Your task to perform on an android device: Open the calendar app, open the side menu, and click the "Day" option Image 0: 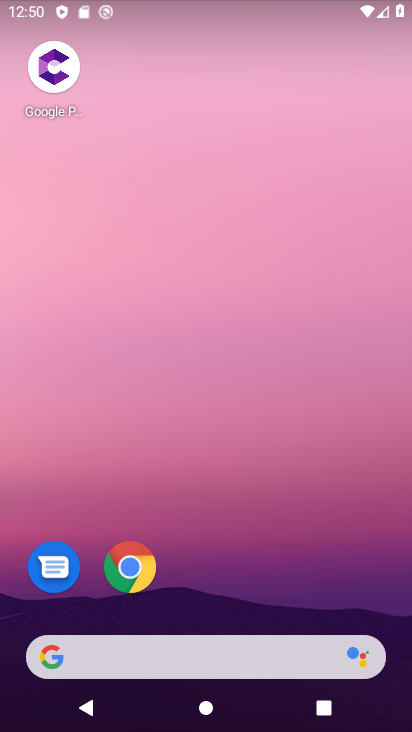
Step 0: drag from (225, 567) to (342, 112)
Your task to perform on an android device: Open the calendar app, open the side menu, and click the "Day" option Image 1: 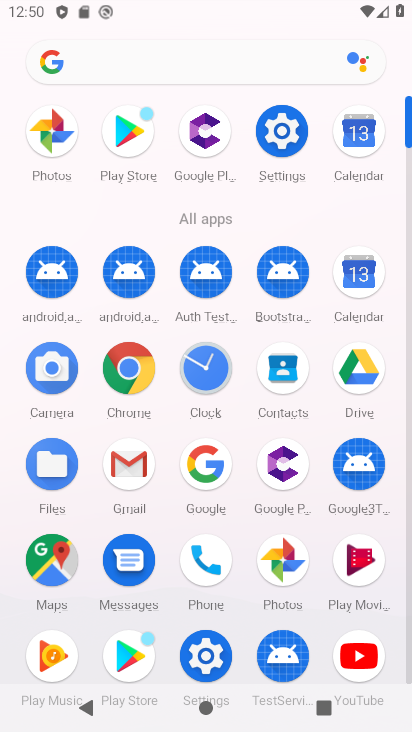
Step 1: click (347, 295)
Your task to perform on an android device: Open the calendar app, open the side menu, and click the "Day" option Image 2: 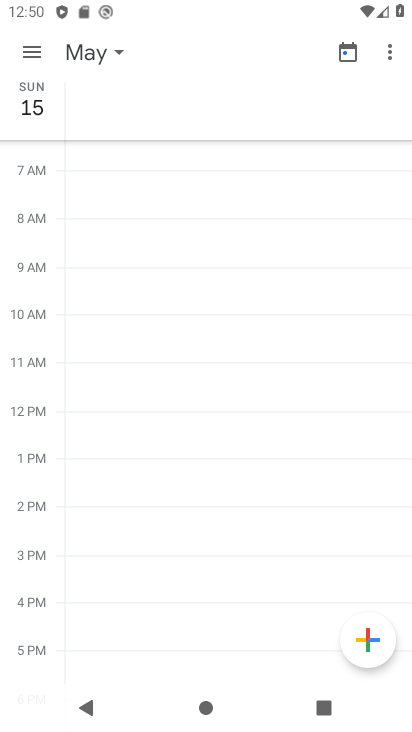
Step 2: click (31, 55)
Your task to perform on an android device: Open the calendar app, open the side menu, and click the "Day" option Image 3: 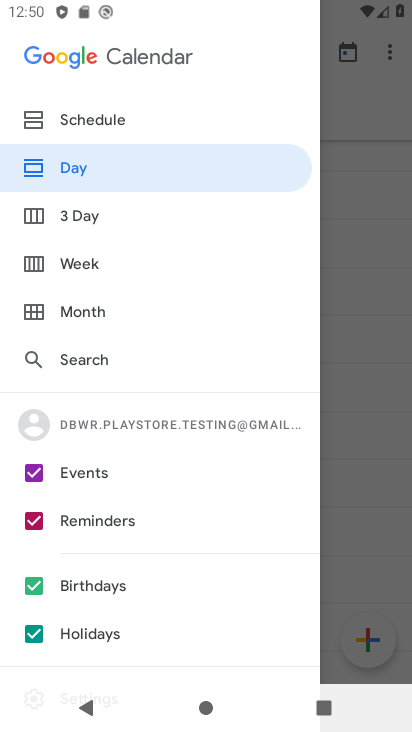
Step 3: click (159, 184)
Your task to perform on an android device: Open the calendar app, open the side menu, and click the "Day" option Image 4: 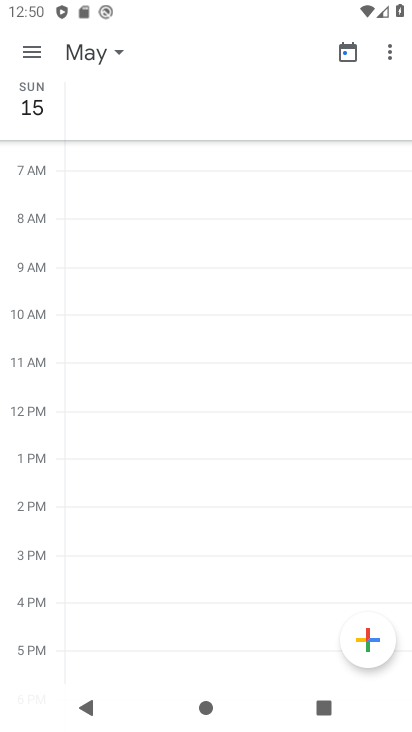
Step 4: task complete